Your task to perform on an android device: Open eBay Image 0: 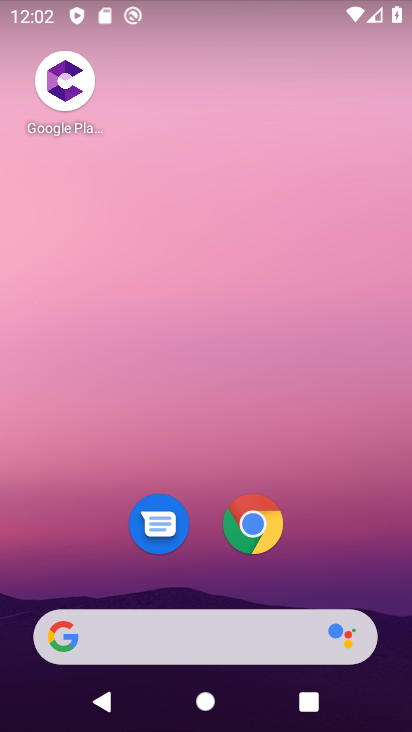
Step 0: click (229, 651)
Your task to perform on an android device: Open eBay Image 1: 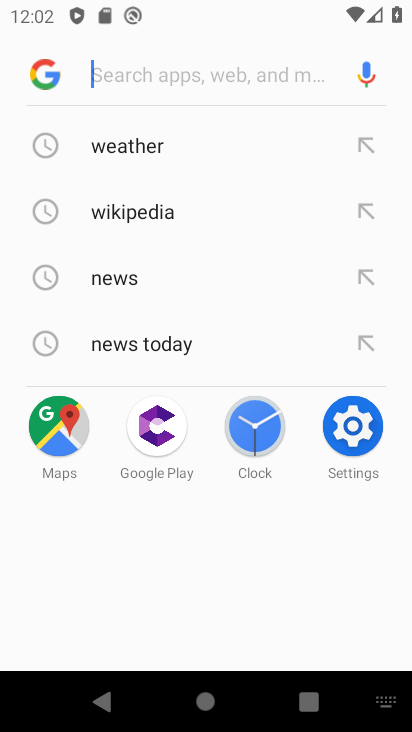
Step 1: type "ebay"
Your task to perform on an android device: Open eBay Image 2: 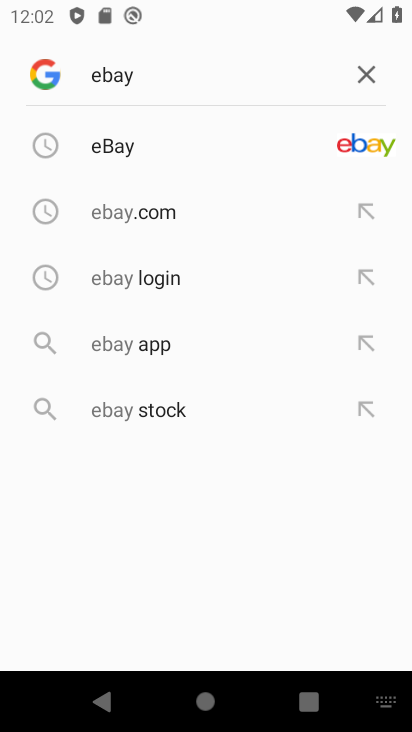
Step 2: click (120, 150)
Your task to perform on an android device: Open eBay Image 3: 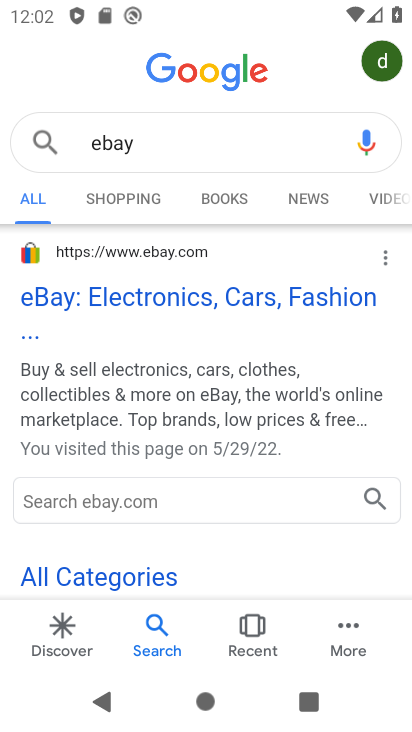
Step 3: click (55, 300)
Your task to perform on an android device: Open eBay Image 4: 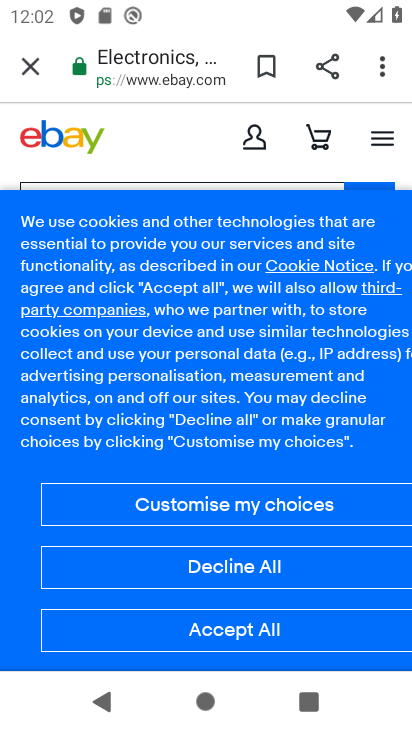
Step 4: task complete